Your task to perform on an android device: toggle javascript in the chrome app Image 0: 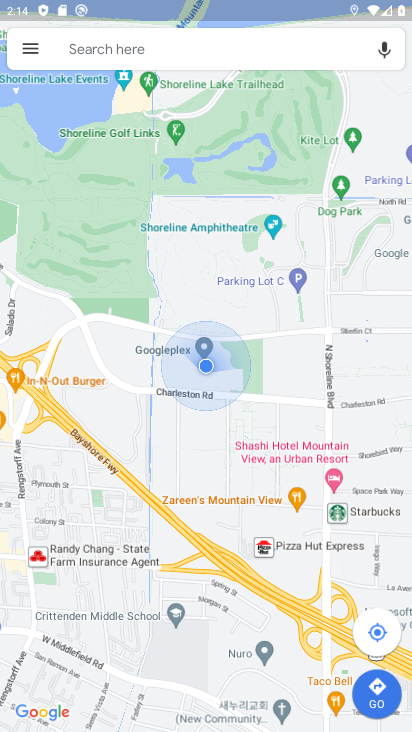
Step 0: press home button
Your task to perform on an android device: toggle javascript in the chrome app Image 1: 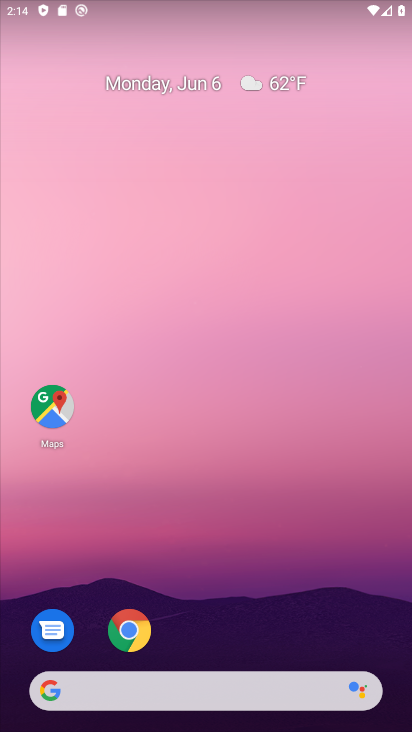
Step 1: drag from (238, 609) to (275, 125)
Your task to perform on an android device: toggle javascript in the chrome app Image 2: 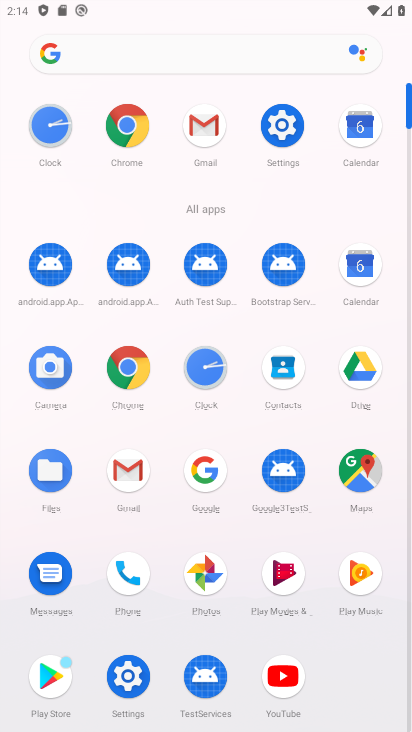
Step 2: click (128, 370)
Your task to perform on an android device: toggle javascript in the chrome app Image 3: 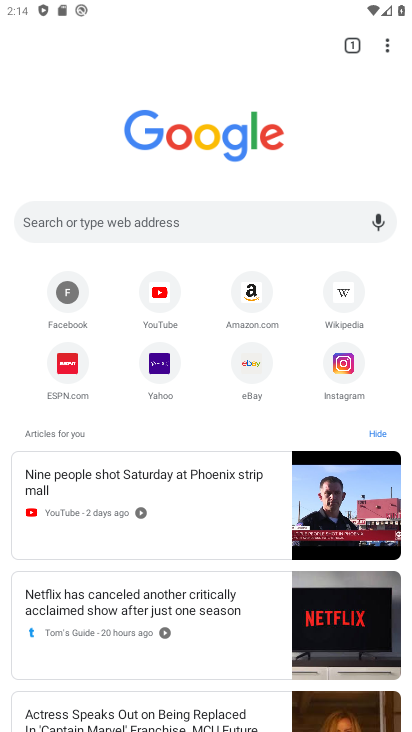
Step 3: drag from (386, 37) to (226, 390)
Your task to perform on an android device: toggle javascript in the chrome app Image 4: 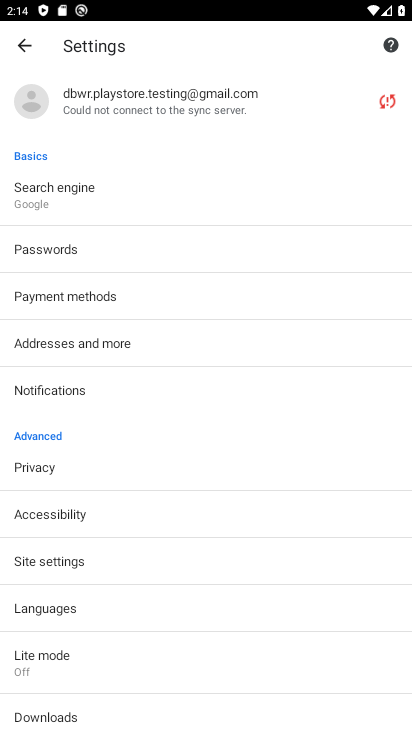
Step 4: click (55, 555)
Your task to perform on an android device: toggle javascript in the chrome app Image 5: 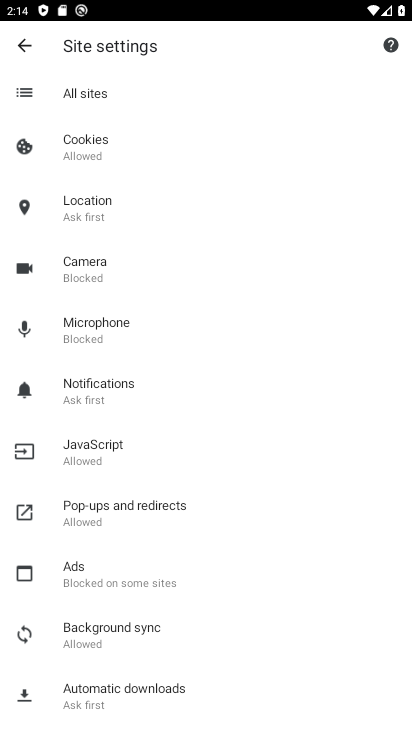
Step 5: click (99, 437)
Your task to perform on an android device: toggle javascript in the chrome app Image 6: 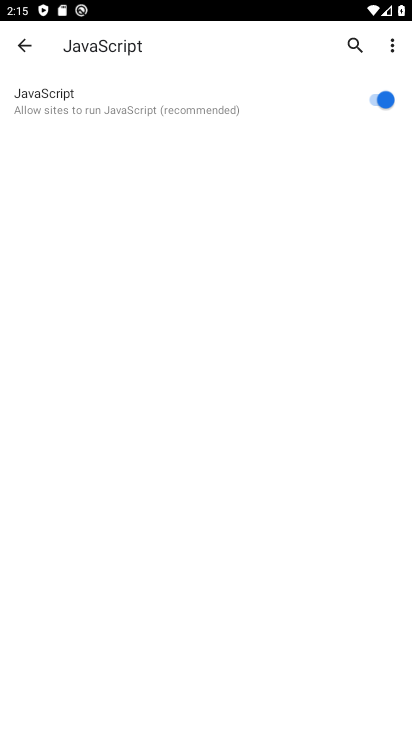
Step 6: click (382, 99)
Your task to perform on an android device: toggle javascript in the chrome app Image 7: 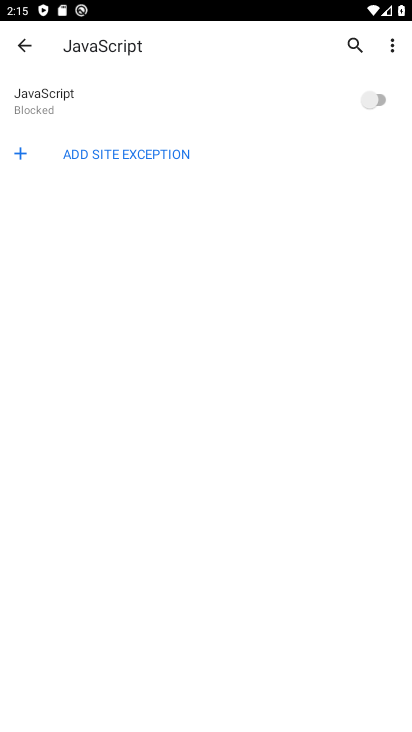
Step 7: task complete